Your task to perform on an android device: Go to ESPN.com Image 0: 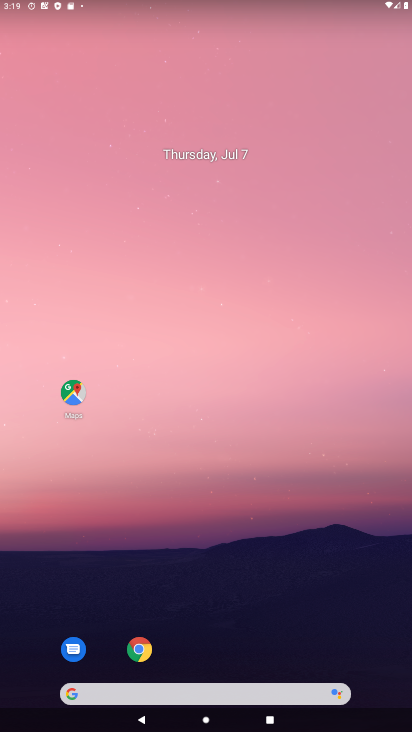
Step 0: drag from (274, 687) to (309, 79)
Your task to perform on an android device: Go to ESPN.com Image 1: 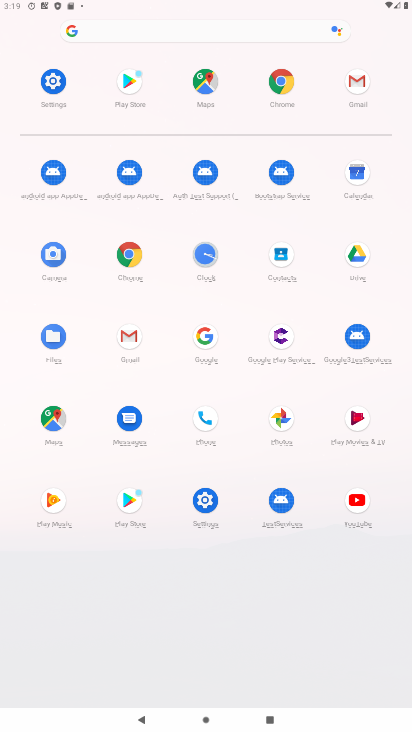
Step 1: click (133, 251)
Your task to perform on an android device: Go to ESPN.com Image 2: 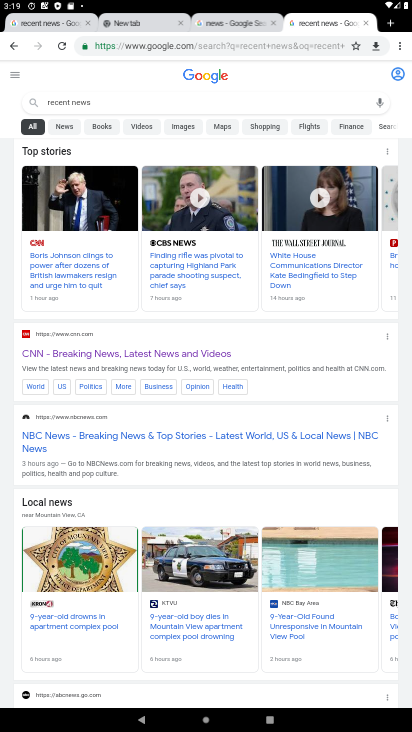
Step 2: click (283, 45)
Your task to perform on an android device: Go to ESPN.com Image 3: 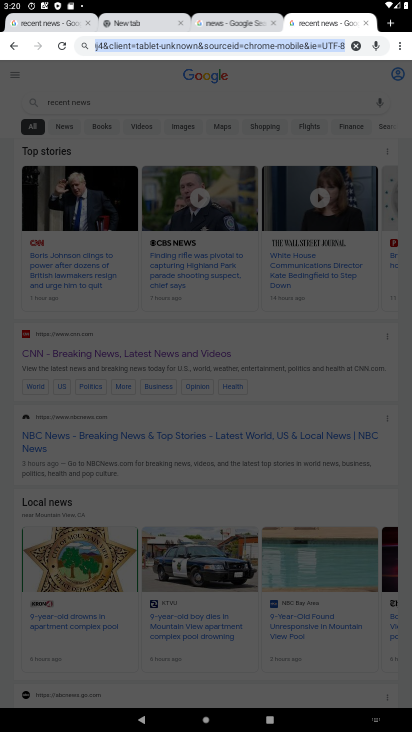
Step 3: type "espn.com"
Your task to perform on an android device: Go to ESPN.com Image 4: 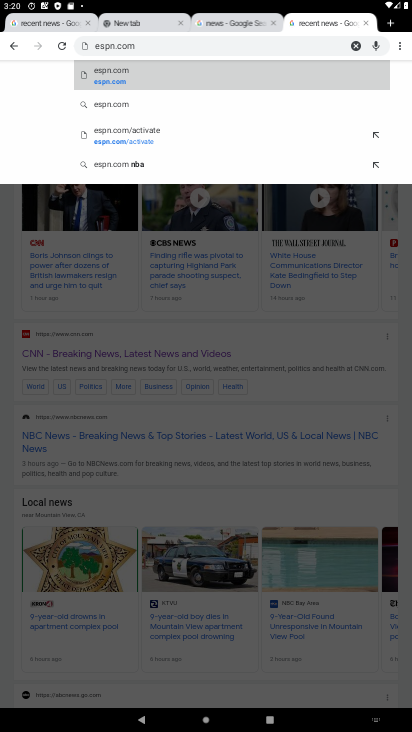
Step 4: click (132, 74)
Your task to perform on an android device: Go to ESPN.com Image 5: 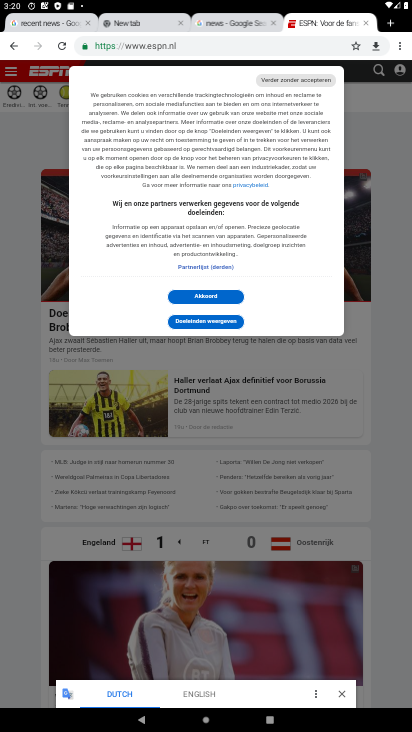
Step 5: task complete